Your task to perform on an android device: Go to display settings Image 0: 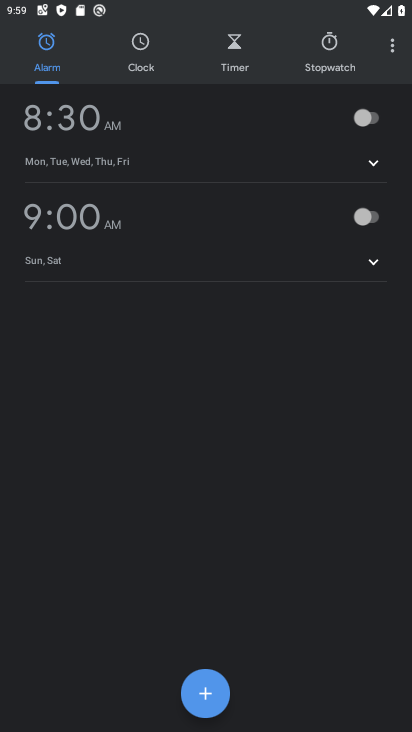
Step 0: press home button
Your task to perform on an android device: Go to display settings Image 1: 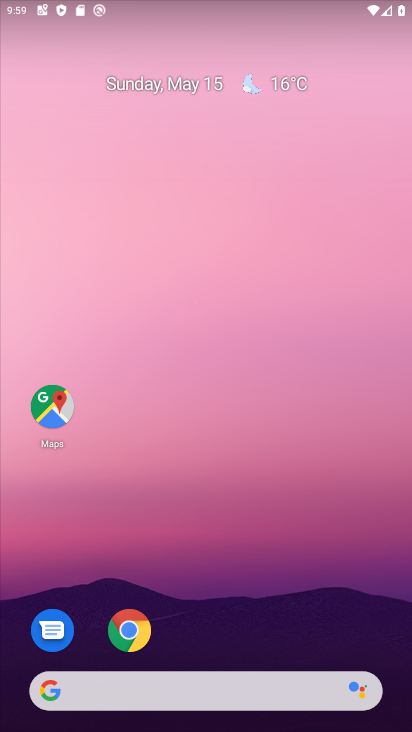
Step 1: drag from (244, 625) to (217, 166)
Your task to perform on an android device: Go to display settings Image 2: 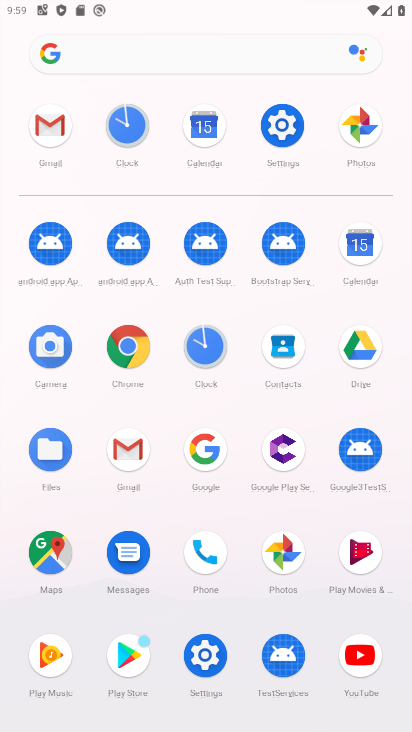
Step 2: click (286, 119)
Your task to perform on an android device: Go to display settings Image 3: 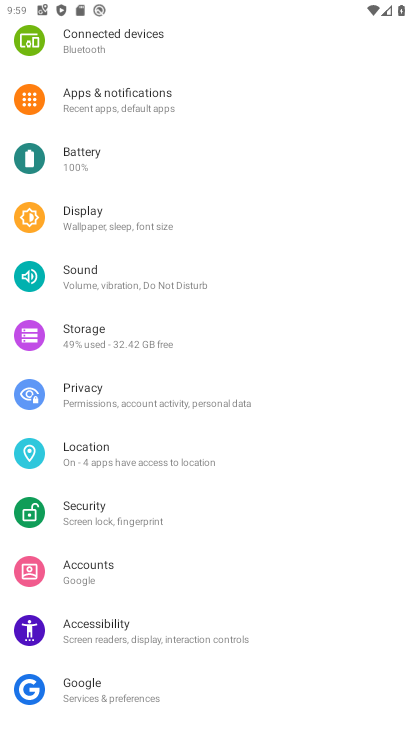
Step 3: click (145, 230)
Your task to perform on an android device: Go to display settings Image 4: 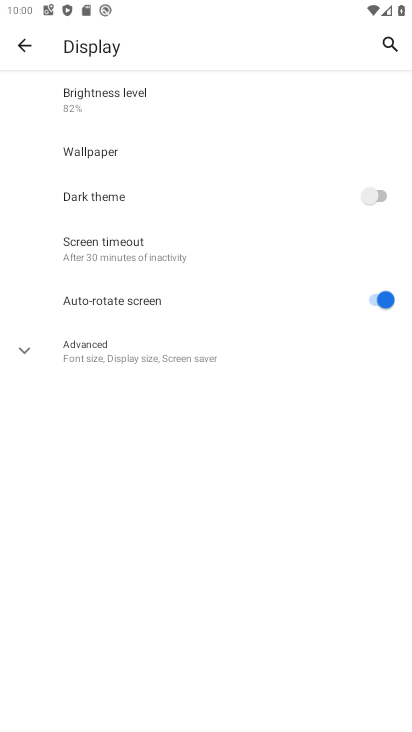
Step 4: task complete